Your task to perform on an android device: Go to accessibility settings Image 0: 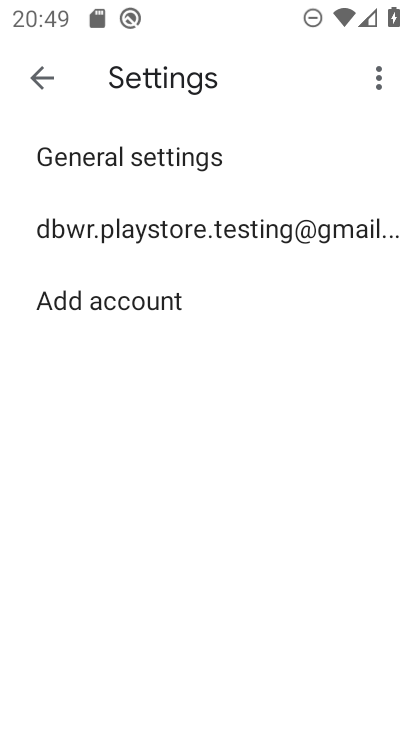
Step 0: press home button
Your task to perform on an android device: Go to accessibility settings Image 1: 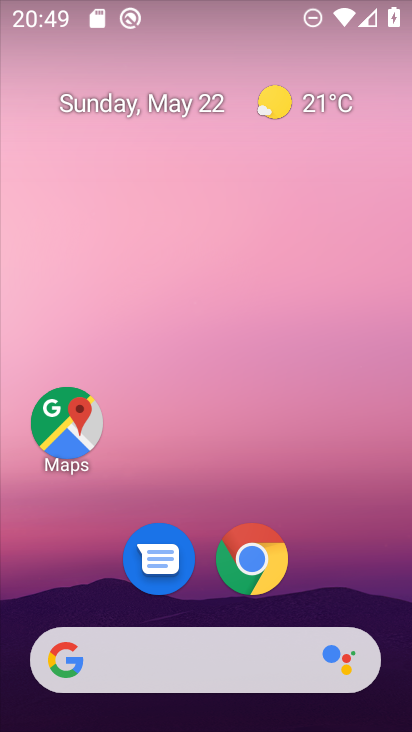
Step 1: drag from (221, 682) to (135, 141)
Your task to perform on an android device: Go to accessibility settings Image 2: 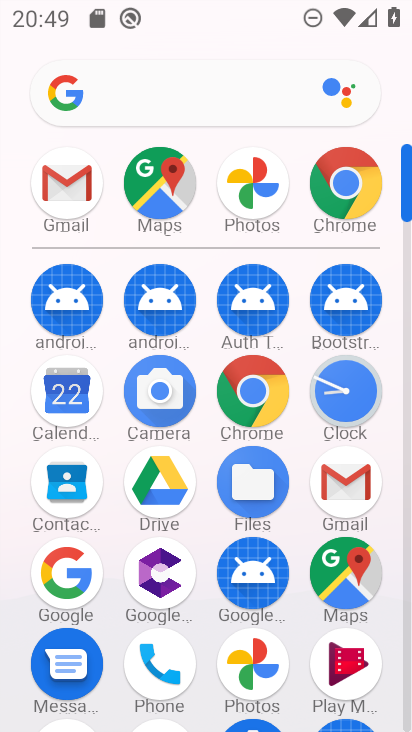
Step 2: drag from (113, 525) to (53, 145)
Your task to perform on an android device: Go to accessibility settings Image 3: 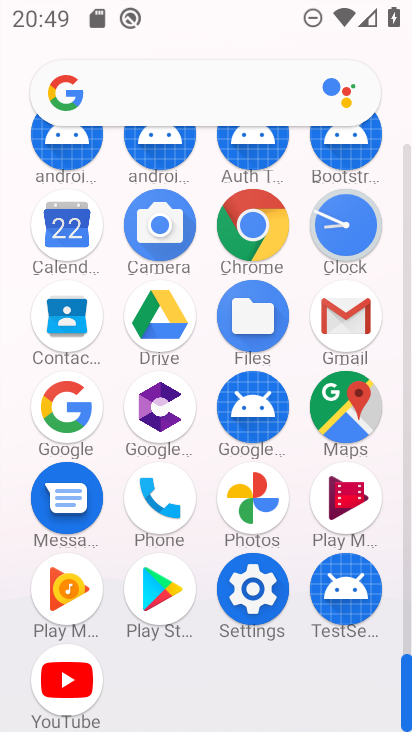
Step 3: click (261, 580)
Your task to perform on an android device: Go to accessibility settings Image 4: 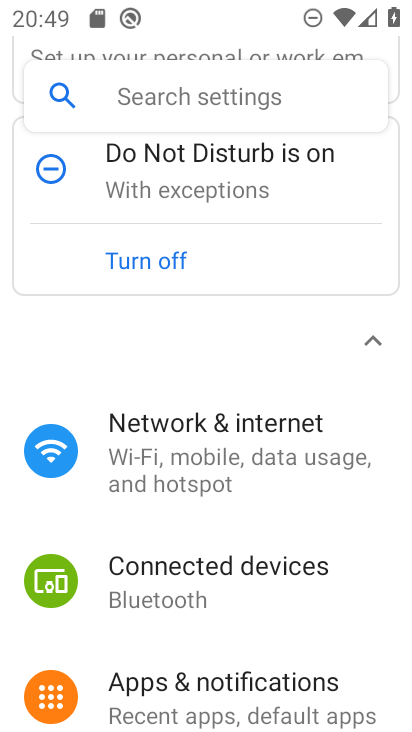
Step 4: click (123, 92)
Your task to perform on an android device: Go to accessibility settings Image 5: 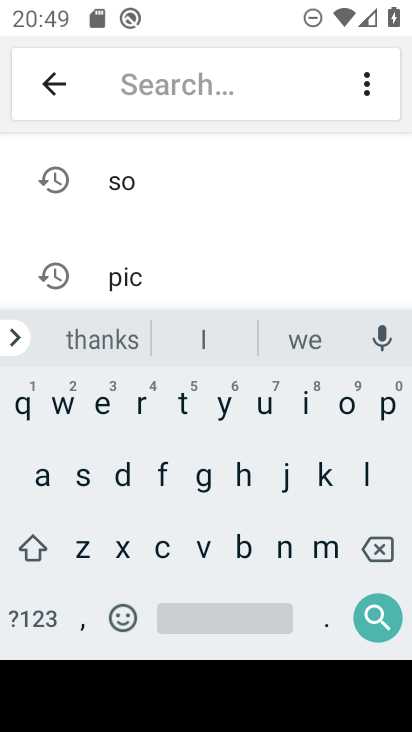
Step 5: click (44, 480)
Your task to perform on an android device: Go to accessibility settings Image 6: 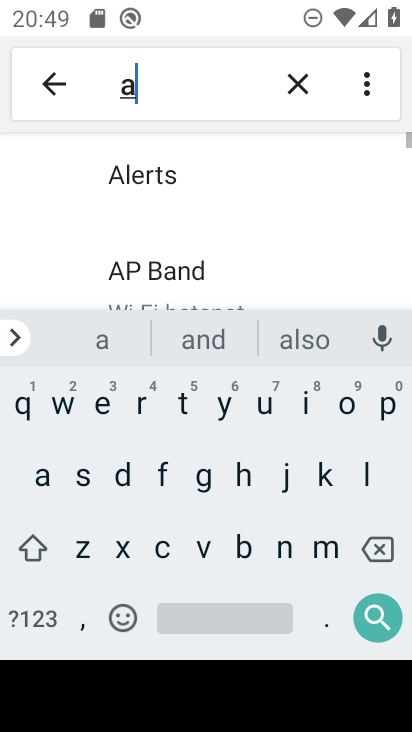
Step 6: click (160, 556)
Your task to perform on an android device: Go to accessibility settings Image 7: 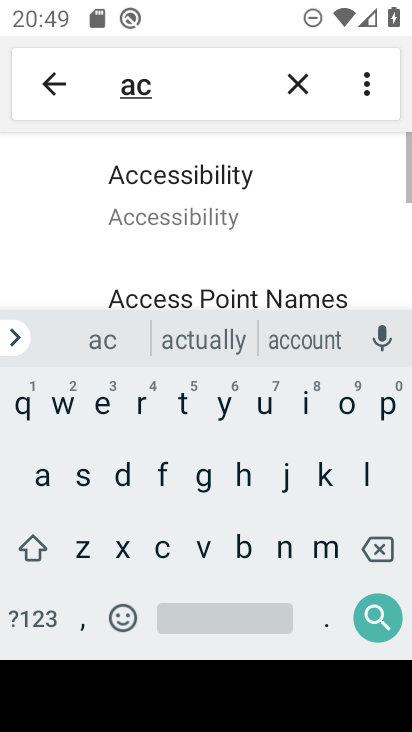
Step 7: click (204, 187)
Your task to perform on an android device: Go to accessibility settings Image 8: 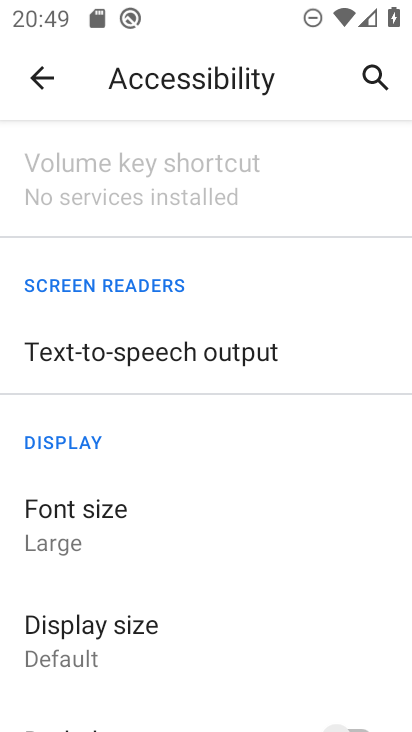
Step 8: task complete